Your task to perform on an android device: Search for Italian restaurants on Maps Image 0: 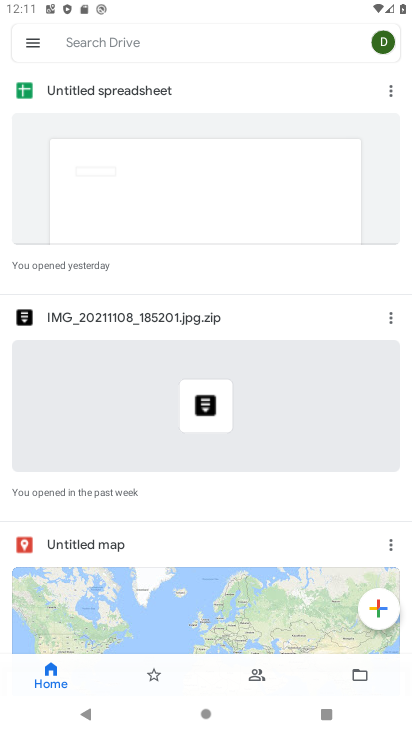
Step 0: press home button
Your task to perform on an android device: Search for Italian restaurants on Maps Image 1: 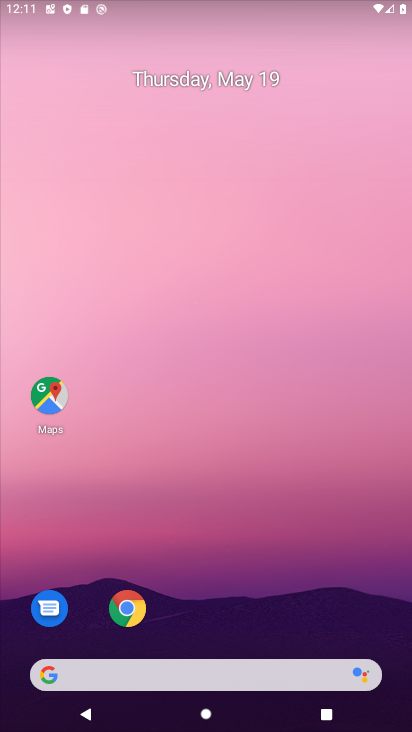
Step 1: drag from (236, 602) to (259, 251)
Your task to perform on an android device: Search for Italian restaurants on Maps Image 2: 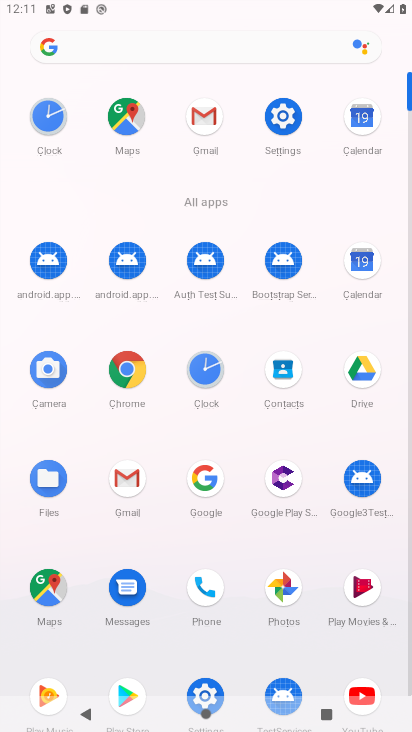
Step 2: click (35, 591)
Your task to perform on an android device: Search for Italian restaurants on Maps Image 3: 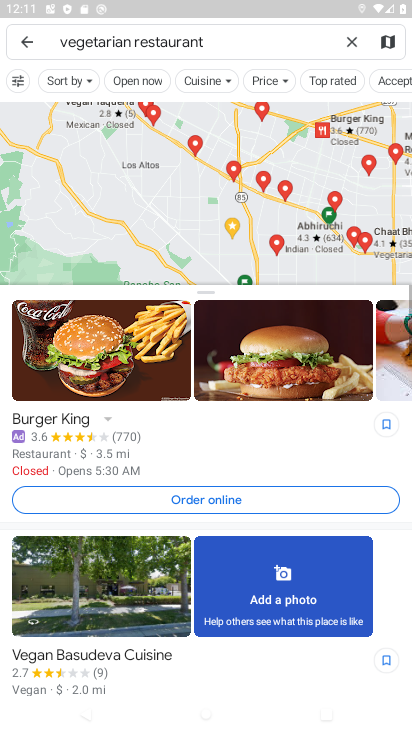
Step 3: click (347, 36)
Your task to perform on an android device: Search for Italian restaurants on Maps Image 4: 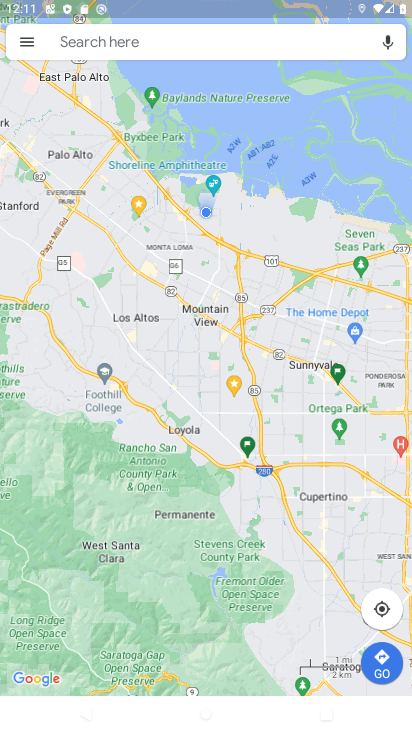
Step 4: click (189, 36)
Your task to perform on an android device: Search for Italian restaurants on Maps Image 5: 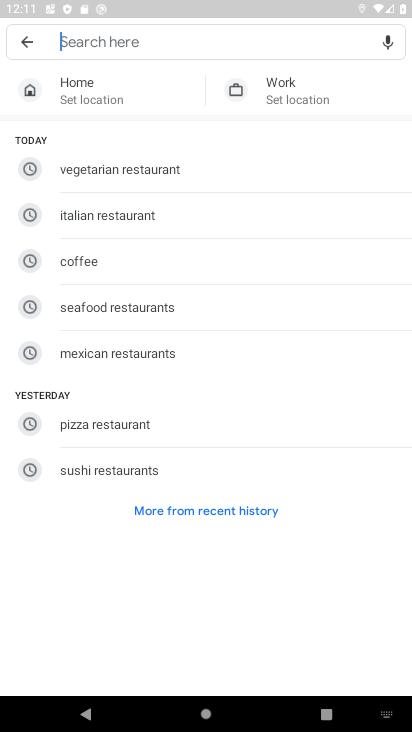
Step 5: click (147, 215)
Your task to perform on an android device: Search for Italian restaurants on Maps Image 6: 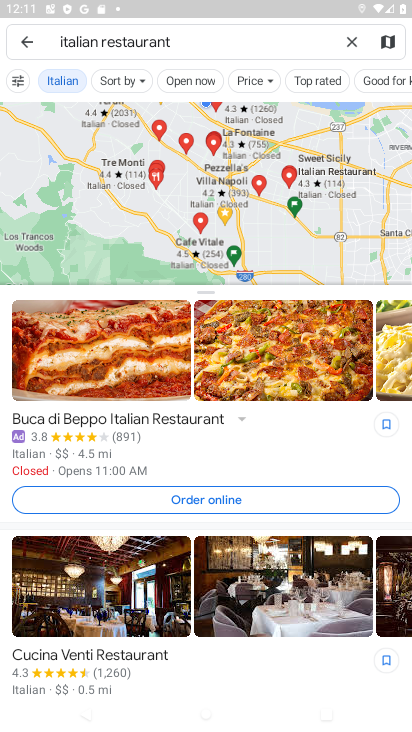
Step 6: task complete